Your task to perform on an android device: Open calendar and show me the third week of next month Image 0: 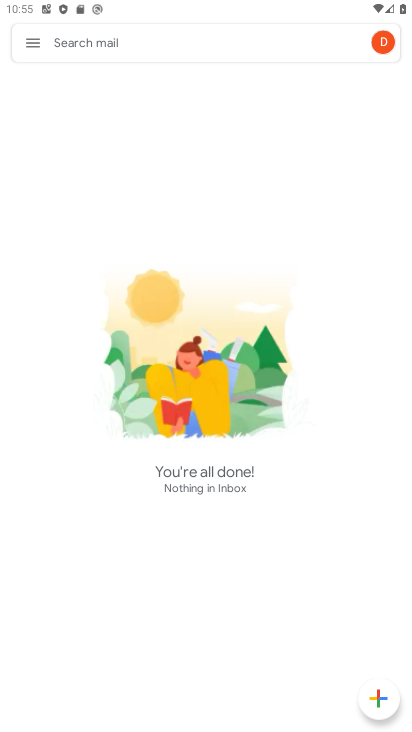
Step 0: press home button
Your task to perform on an android device: Open calendar and show me the third week of next month Image 1: 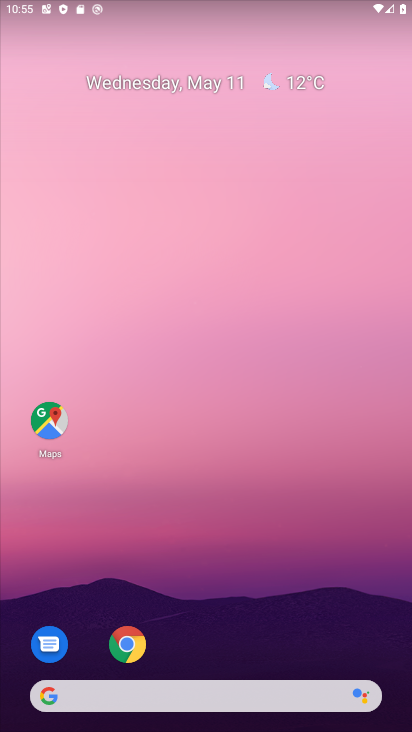
Step 1: drag from (262, 634) to (201, 131)
Your task to perform on an android device: Open calendar and show me the third week of next month Image 2: 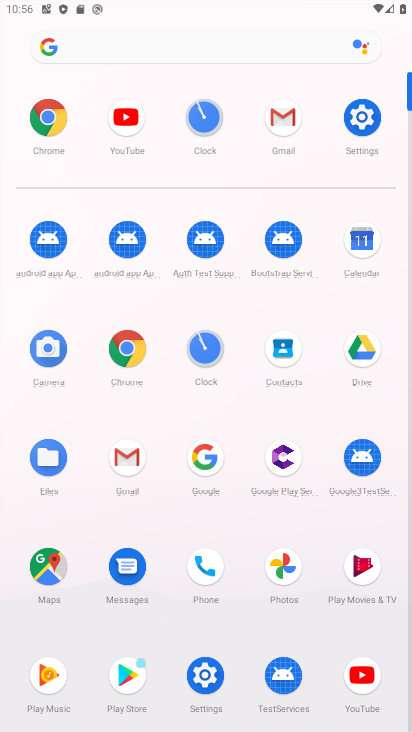
Step 2: click (363, 148)
Your task to perform on an android device: Open calendar and show me the third week of next month Image 3: 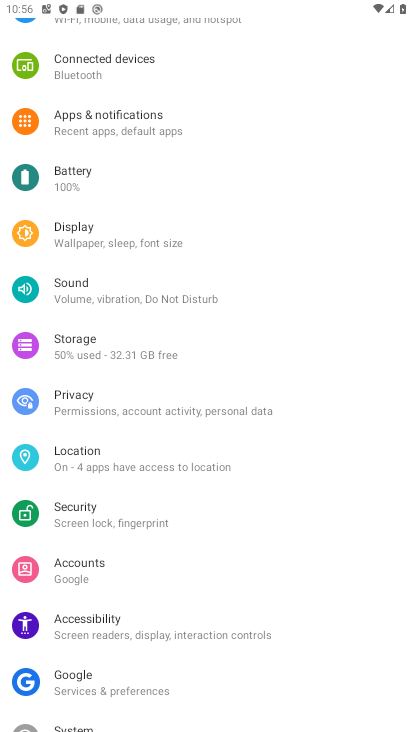
Step 3: press home button
Your task to perform on an android device: Open calendar and show me the third week of next month Image 4: 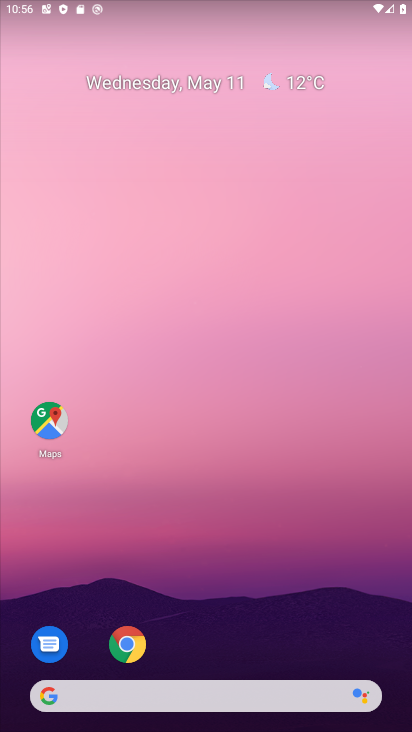
Step 4: drag from (295, 551) to (302, 196)
Your task to perform on an android device: Open calendar and show me the third week of next month Image 5: 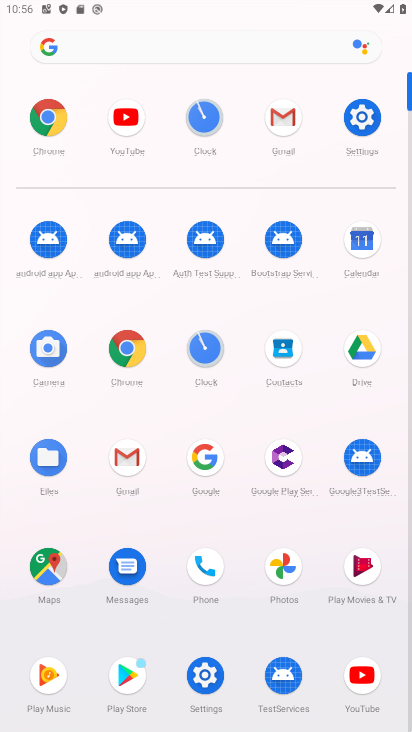
Step 5: click (282, 360)
Your task to perform on an android device: Open calendar and show me the third week of next month Image 6: 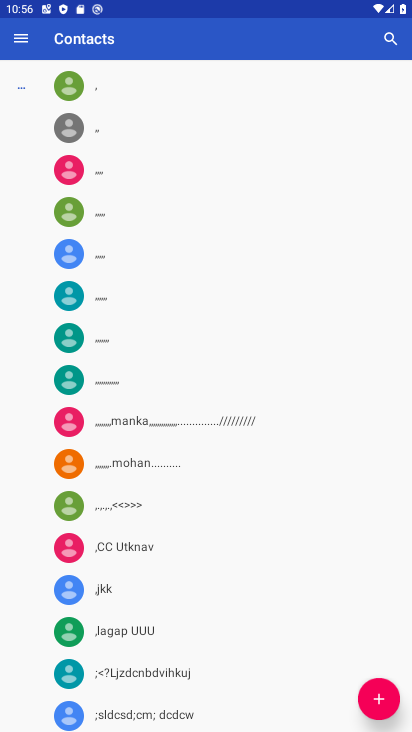
Step 6: press home button
Your task to perform on an android device: Open calendar and show me the third week of next month Image 7: 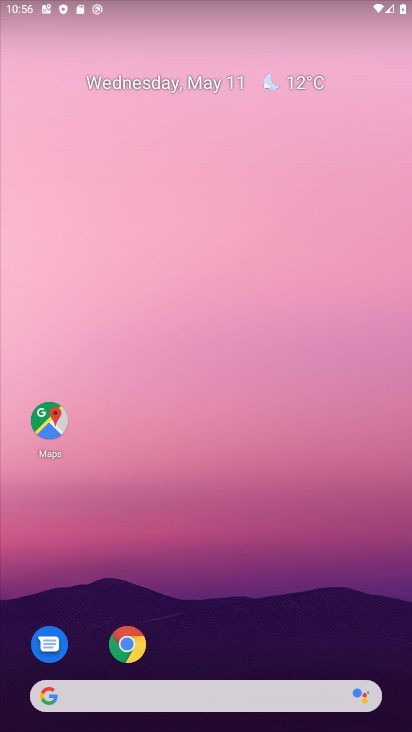
Step 7: drag from (253, 633) to (254, 80)
Your task to perform on an android device: Open calendar and show me the third week of next month Image 8: 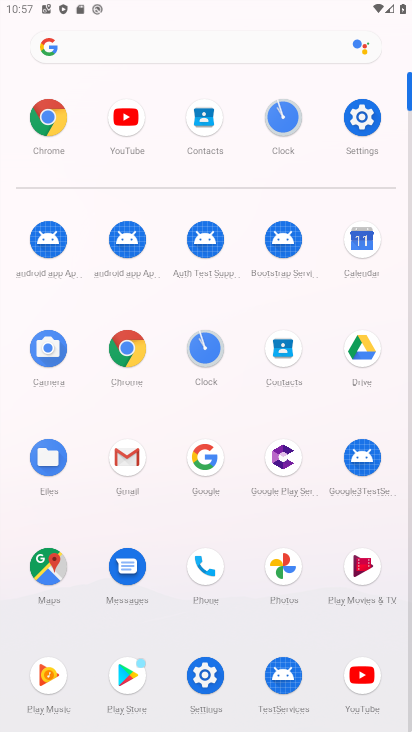
Step 8: click (358, 251)
Your task to perform on an android device: Open calendar and show me the third week of next month Image 9: 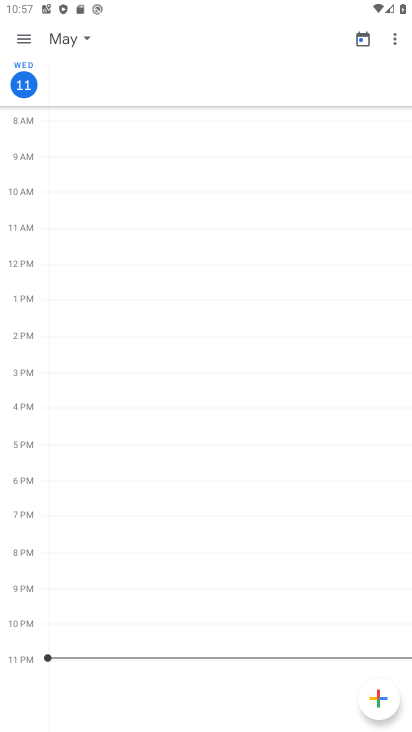
Step 9: click (79, 47)
Your task to perform on an android device: Open calendar and show me the third week of next month Image 10: 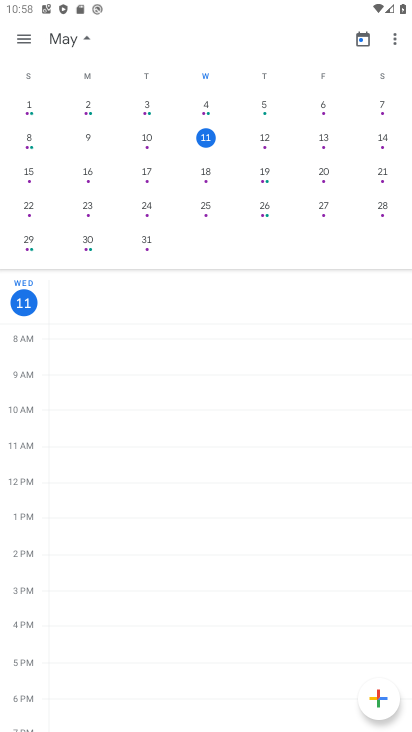
Step 10: drag from (364, 193) to (47, 244)
Your task to perform on an android device: Open calendar and show me the third week of next month Image 11: 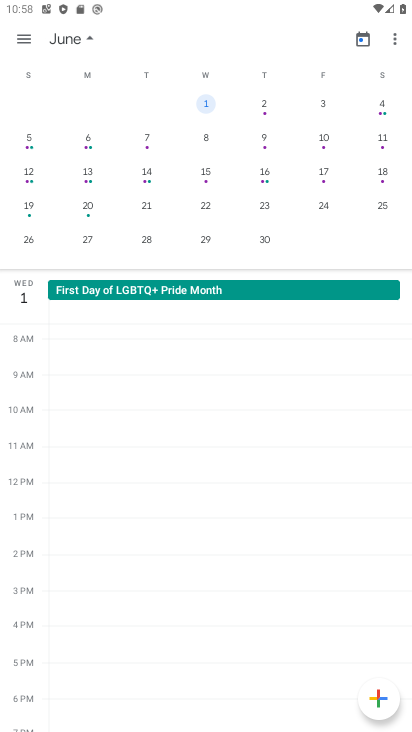
Step 11: drag from (386, 206) to (124, 280)
Your task to perform on an android device: Open calendar and show me the third week of next month Image 12: 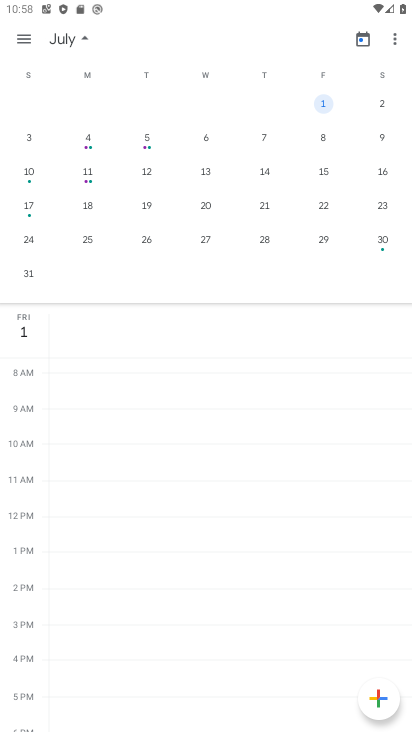
Step 12: drag from (29, 190) to (189, 265)
Your task to perform on an android device: Open calendar and show me the third week of next month Image 13: 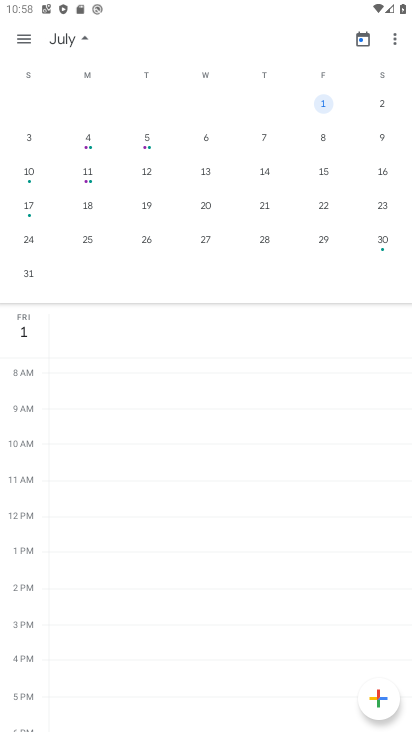
Step 13: drag from (98, 236) to (410, 212)
Your task to perform on an android device: Open calendar and show me the third week of next month Image 14: 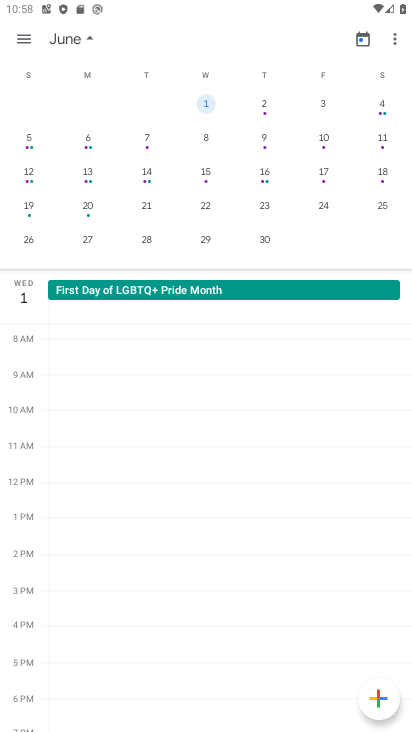
Step 14: click (204, 209)
Your task to perform on an android device: Open calendar and show me the third week of next month Image 15: 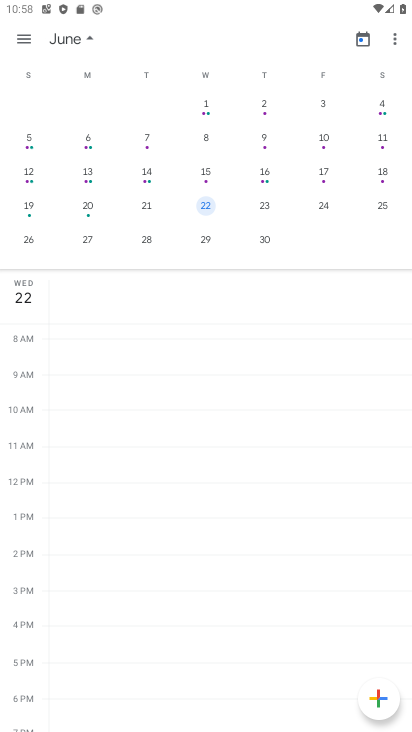
Step 15: task complete